Your task to perform on an android device: Open calendar and show me the fourth week of next month Image 0: 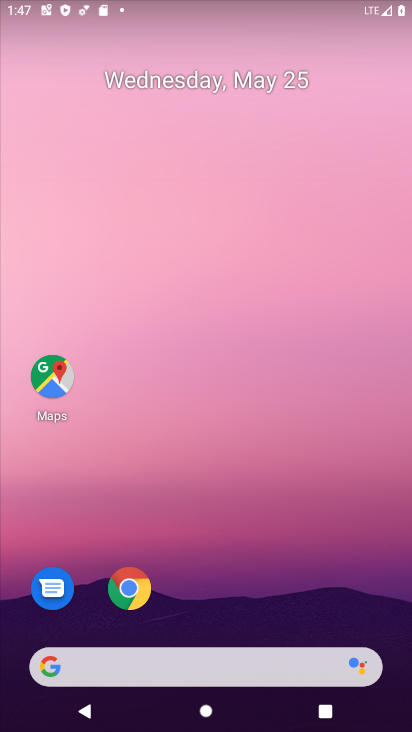
Step 0: drag from (327, 569) to (405, 17)
Your task to perform on an android device: Open calendar and show me the fourth week of next month Image 1: 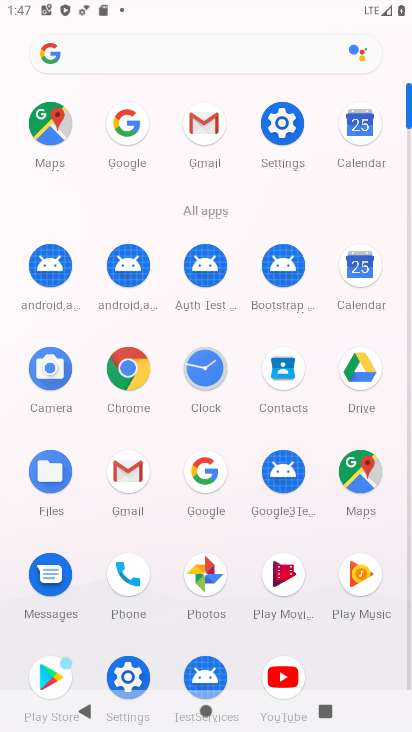
Step 1: click (356, 130)
Your task to perform on an android device: Open calendar and show me the fourth week of next month Image 2: 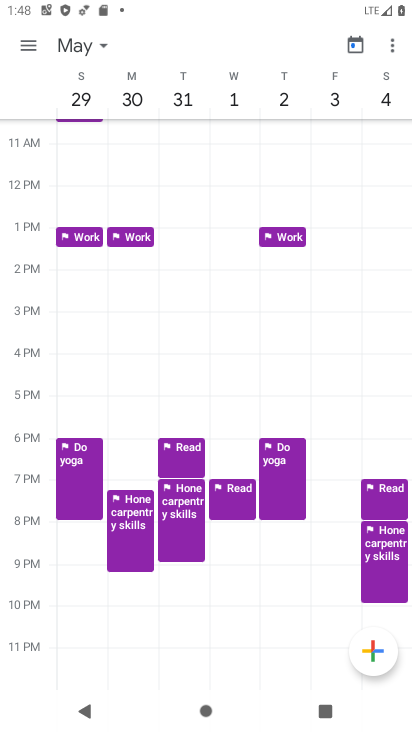
Step 2: task complete